Your task to perform on an android device: check google app version Image 0: 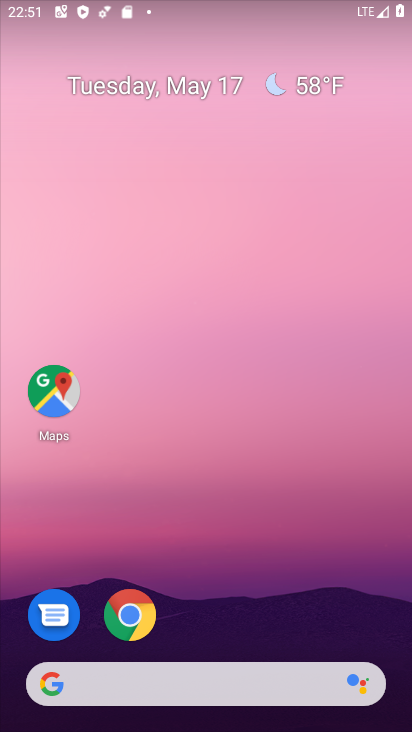
Step 0: drag from (242, 639) to (220, 315)
Your task to perform on an android device: check google app version Image 1: 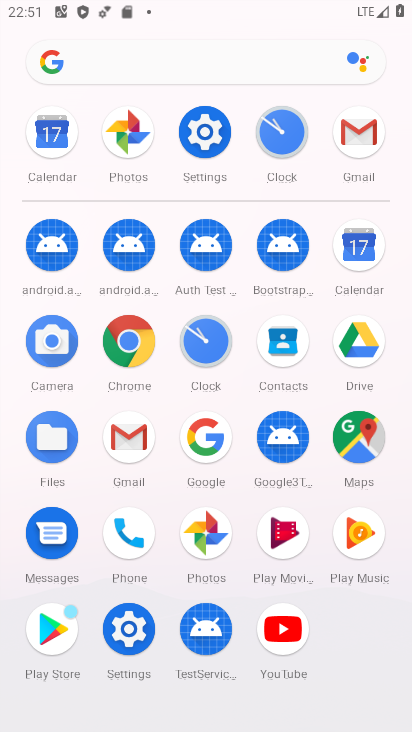
Step 1: click (190, 418)
Your task to perform on an android device: check google app version Image 2: 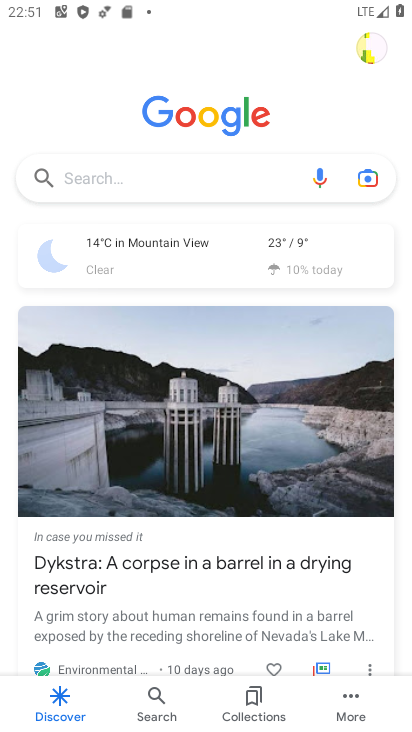
Step 2: click (347, 701)
Your task to perform on an android device: check google app version Image 3: 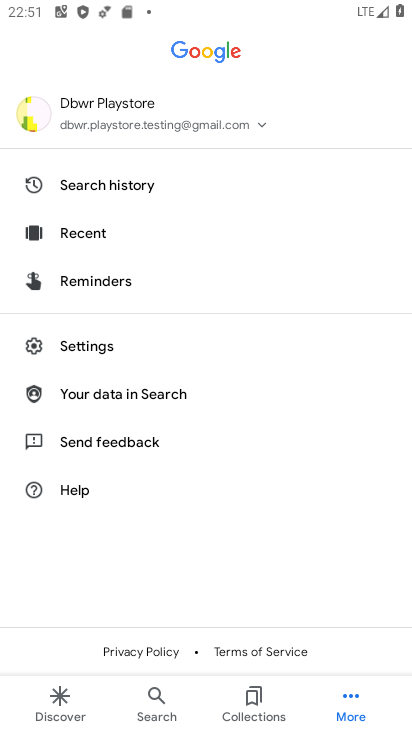
Step 3: click (110, 343)
Your task to perform on an android device: check google app version Image 4: 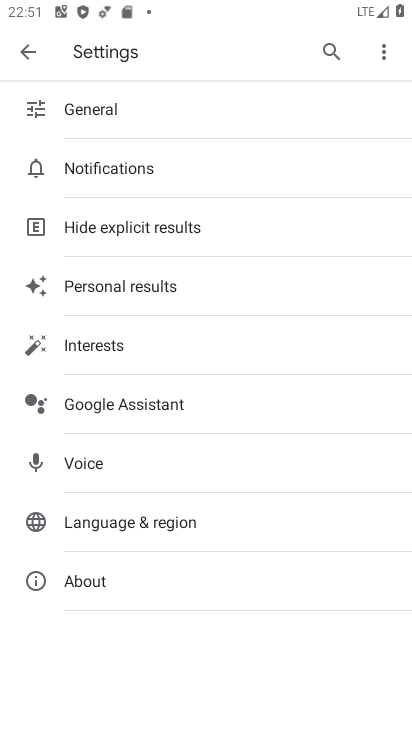
Step 4: click (132, 580)
Your task to perform on an android device: check google app version Image 5: 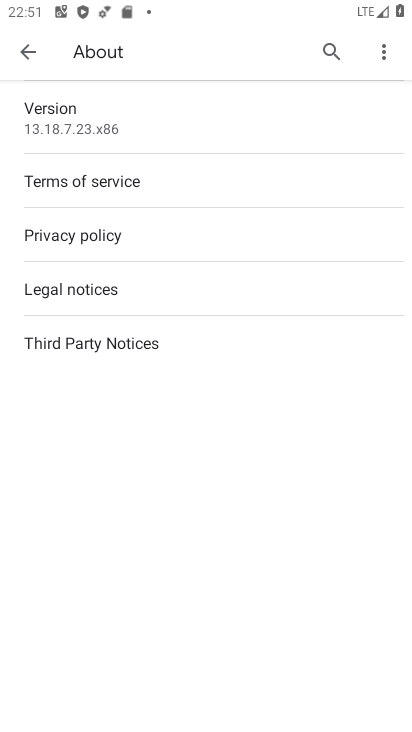
Step 5: click (108, 120)
Your task to perform on an android device: check google app version Image 6: 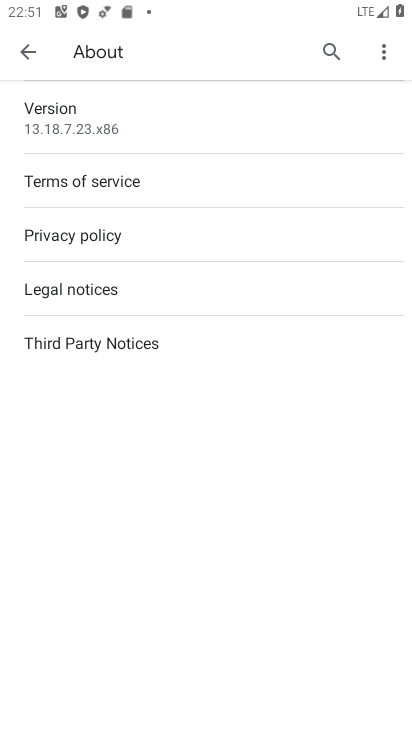
Step 6: click (55, 117)
Your task to perform on an android device: check google app version Image 7: 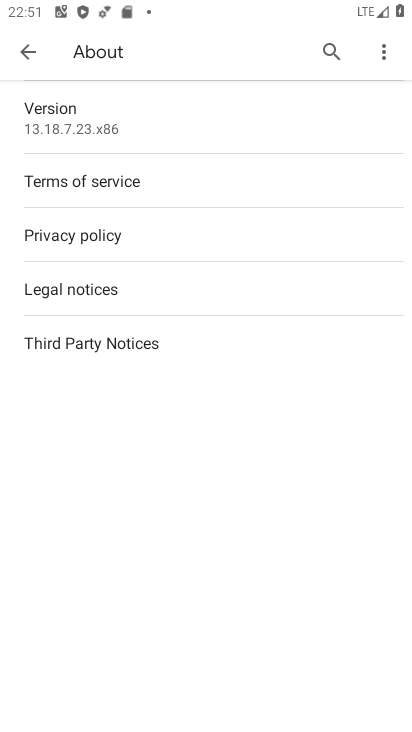
Step 7: task complete